Your task to perform on an android device: turn off sleep mode Image 0: 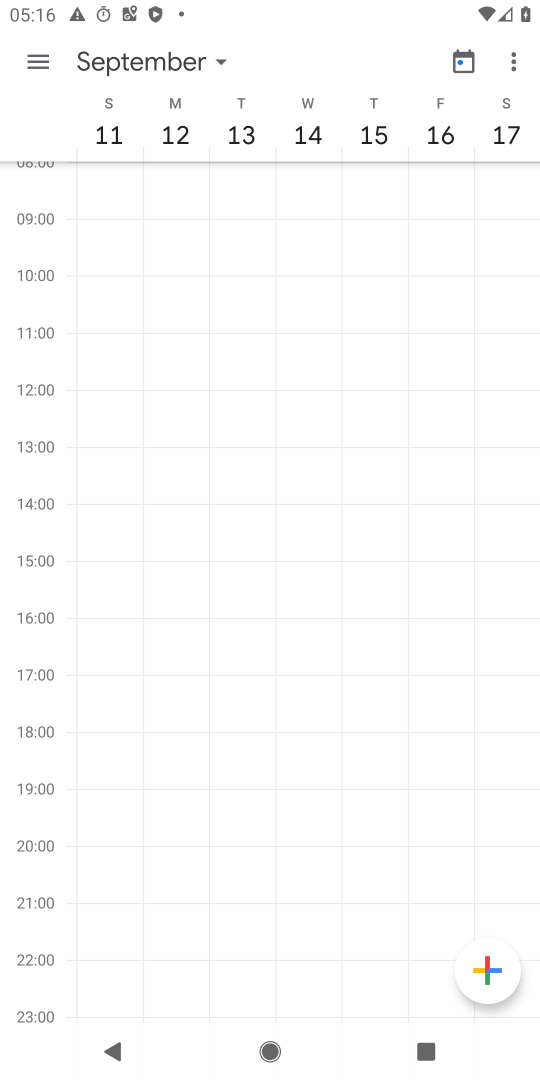
Step 0: press home button
Your task to perform on an android device: turn off sleep mode Image 1: 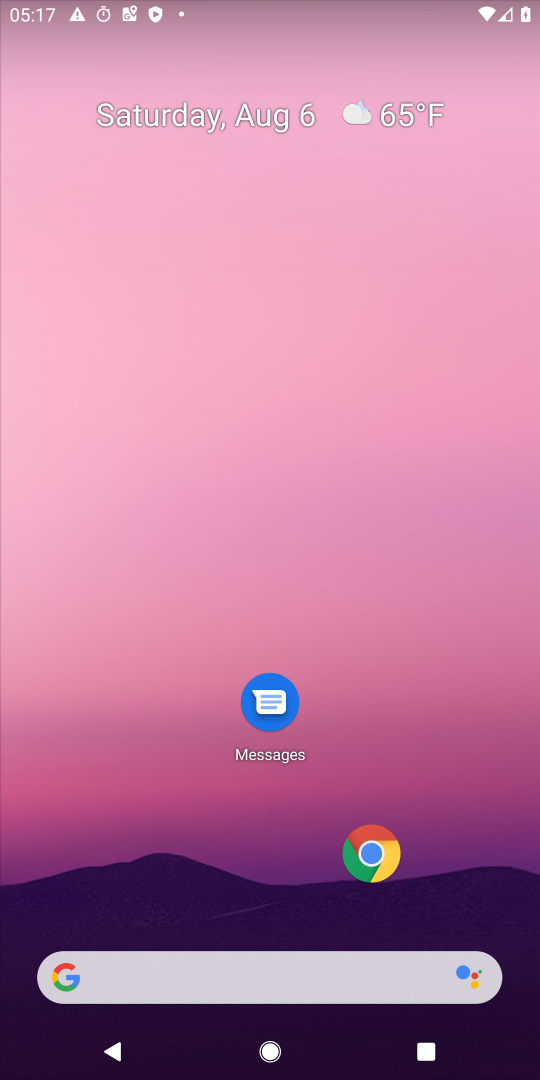
Step 1: drag from (378, 744) to (300, 25)
Your task to perform on an android device: turn off sleep mode Image 2: 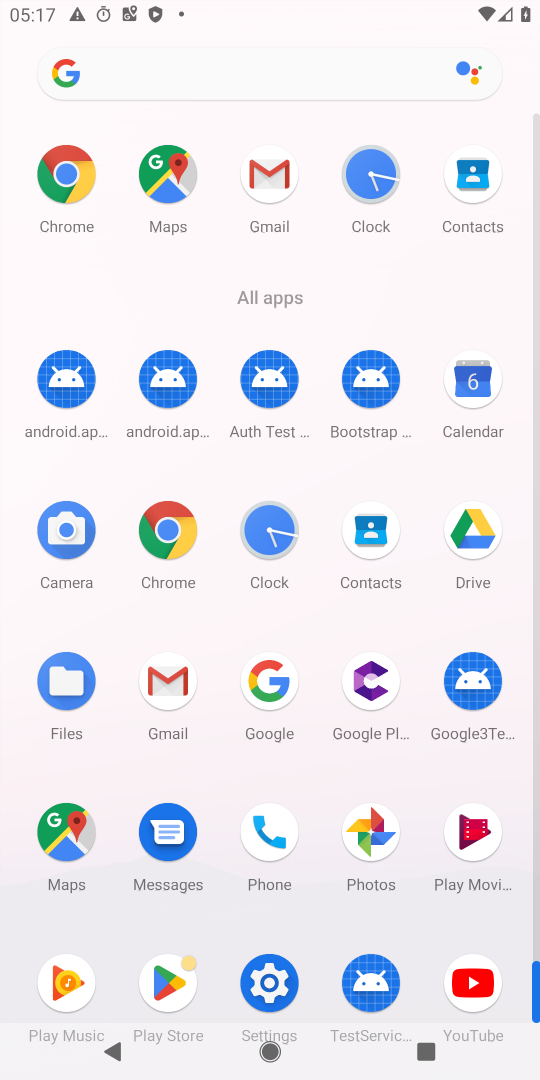
Step 2: click (254, 971)
Your task to perform on an android device: turn off sleep mode Image 3: 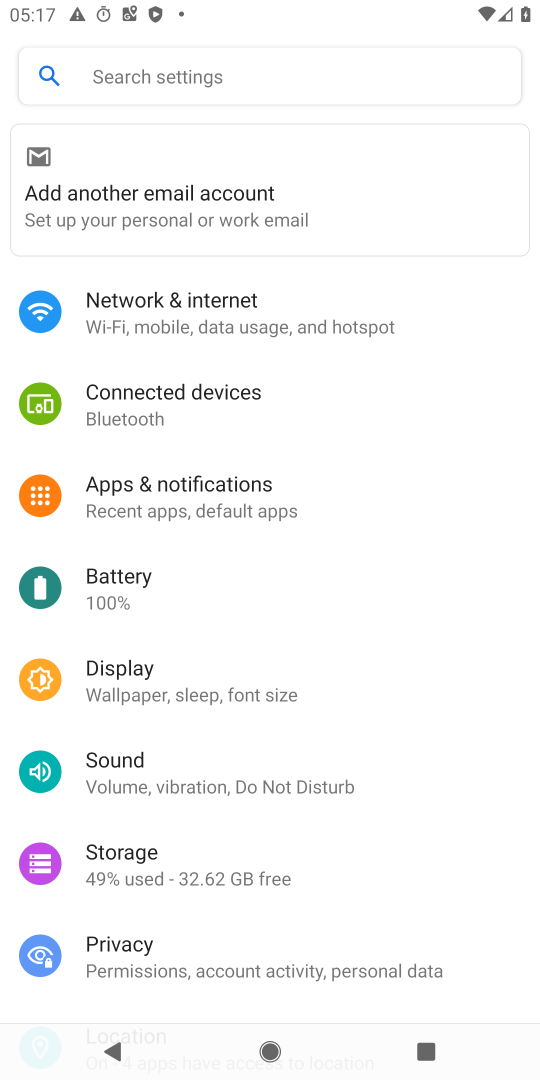
Step 3: click (117, 695)
Your task to perform on an android device: turn off sleep mode Image 4: 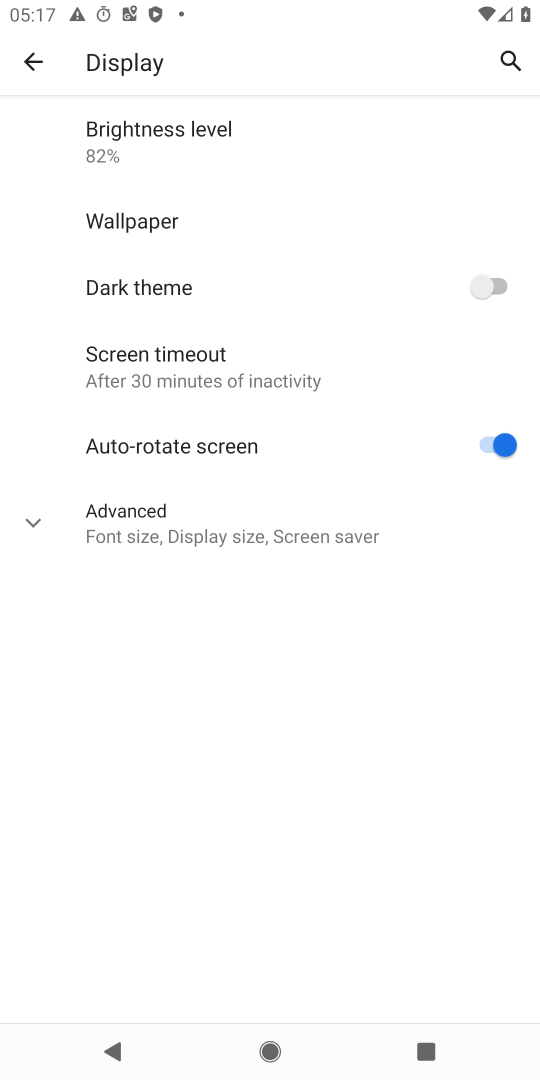
Step 4: click (214, 374)
Your task to perform on an android device: turn off sleep mode Image 5: 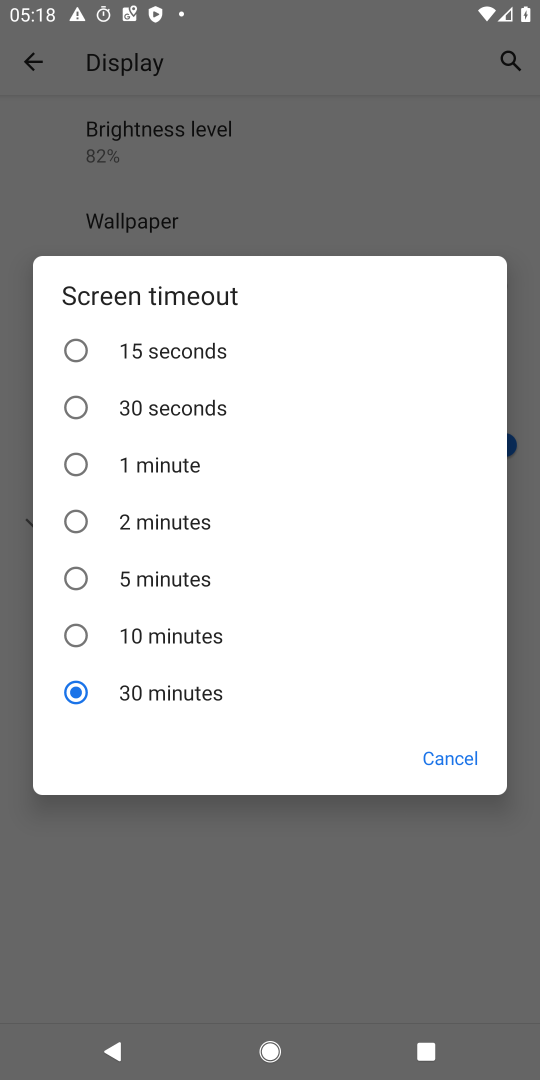
Step 5: task complete